Your task to perform on an android device: Open settings on Google Maps Image 0: 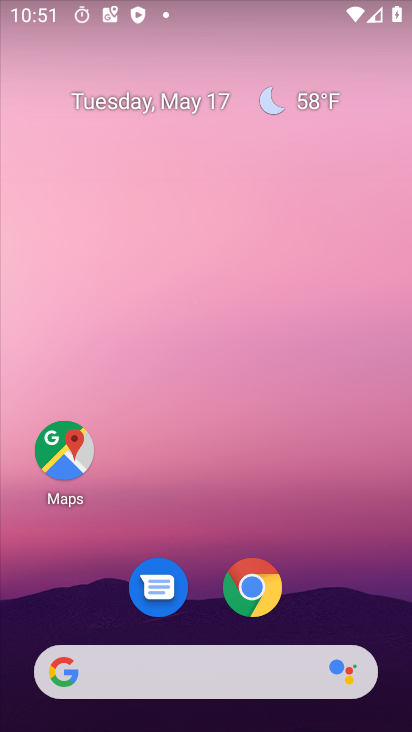
Step 0: click (63, 454)
Your task to perform on an android device: Open settings on Google Maps Image 1: 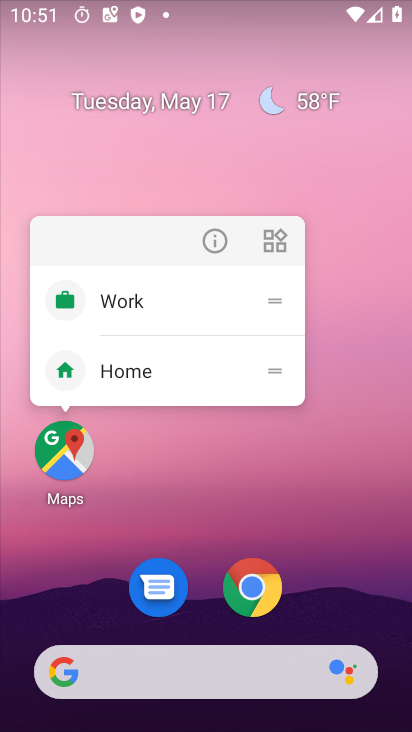
Step 1: click (61, 454)
Your task to perform on an android device: Open settings on Google Maps Image 2: 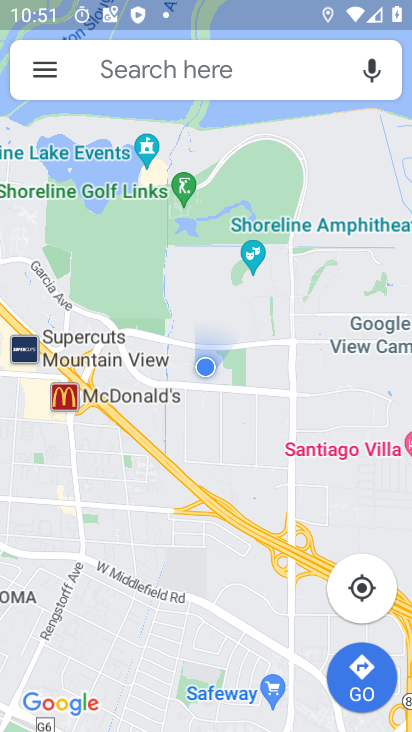
Step 2: click (46, 69)
Your task to perform on an android device: Open settings on Google Maps Image 3: 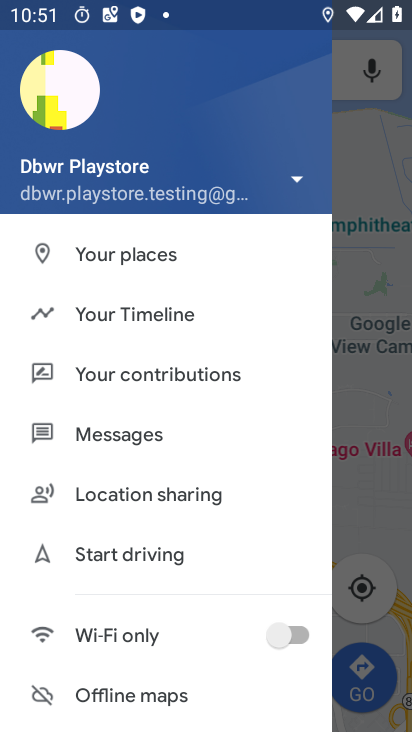
Step 3: drag from (144, 526) to (161, 398)
Your task to perform on an android device: Open settings on Google Maps Image 4: 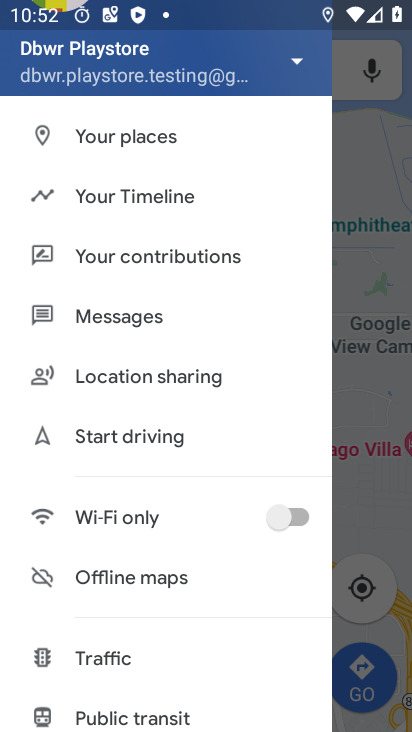
Step 4: drag from (125, 484) to (152, 407)
Your task to perform on an android device: Open settings on Google Maps Image 5: 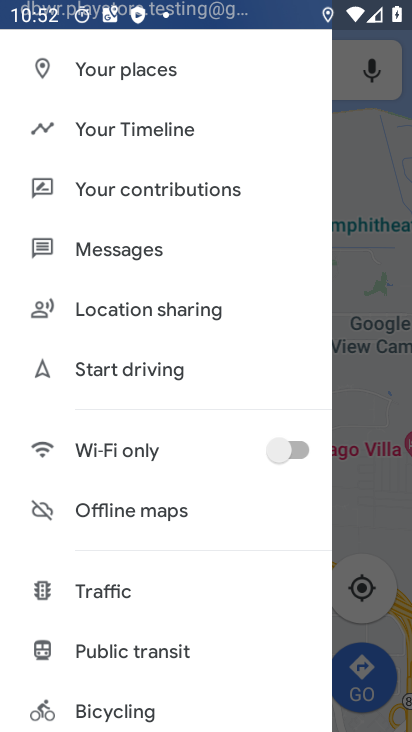
Step 5: drag from (109, 532) to (153, 420)
Your task to perform on an android device: Open settings on Google Maps Image 6: 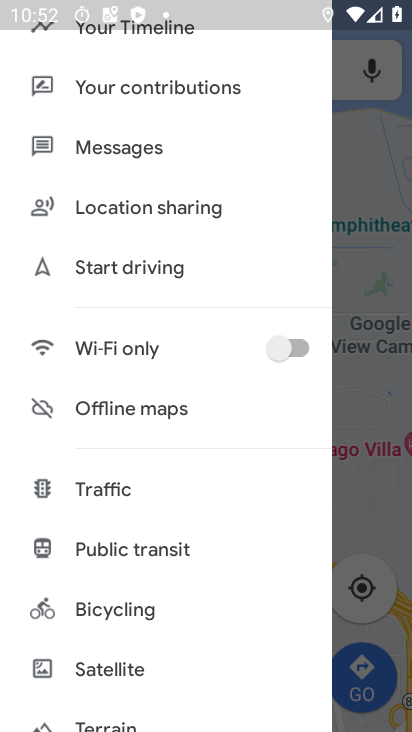
Step 6: drag from (103, 518) to (152, 430)
Your task to perform on an android device: Open settings on Google Maps Image 7: 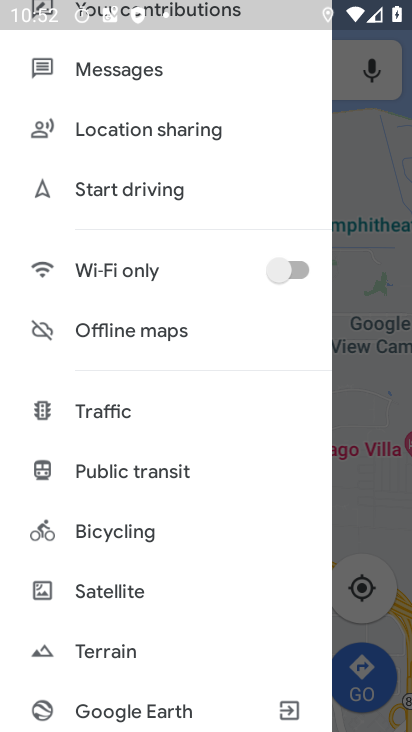
Step 7: drag from (111, 554) to (134, 445)
Your task to perform on an android device: Open settings on Google Maps Image 8: 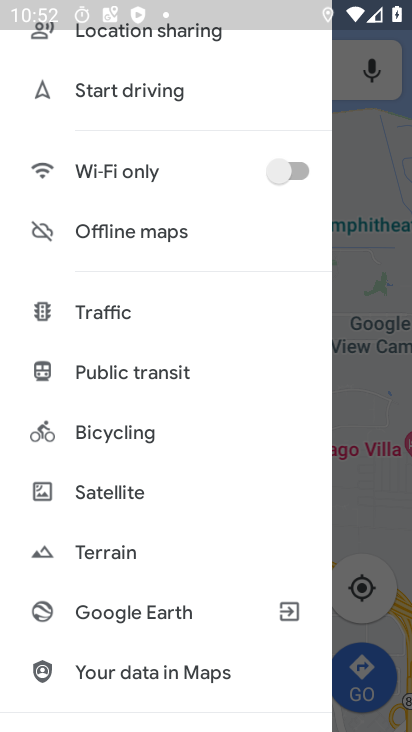
Step 8: drag from (102, 520) to (133, 419)
Your task to perform on an android device: Open settings on Google Maps Image 9: 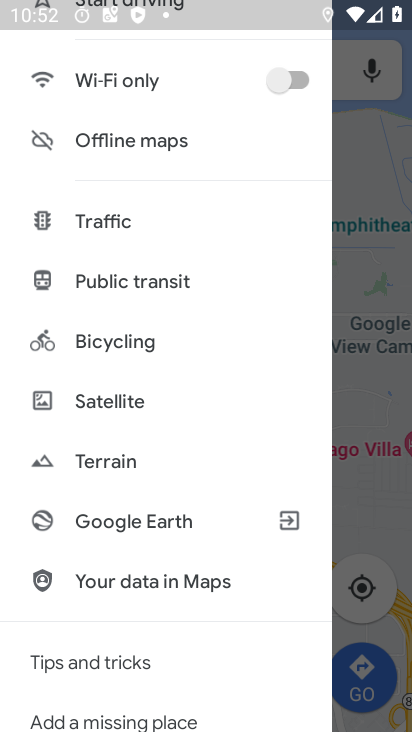
Step 9: drag from (100, 544) to (145, 447)
Your task to perform on an android device: Open settings on Google Maps Image 10: 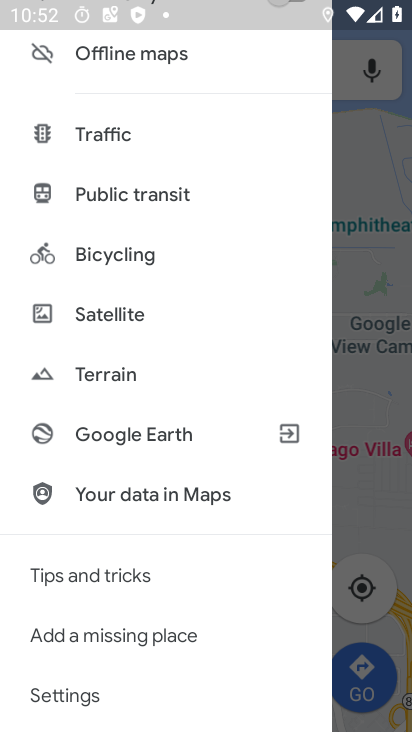
Step 10: drag from (90, 540) to (144, 440)
Your task to perform on an android device: Open settings on Google Maps Image 11: 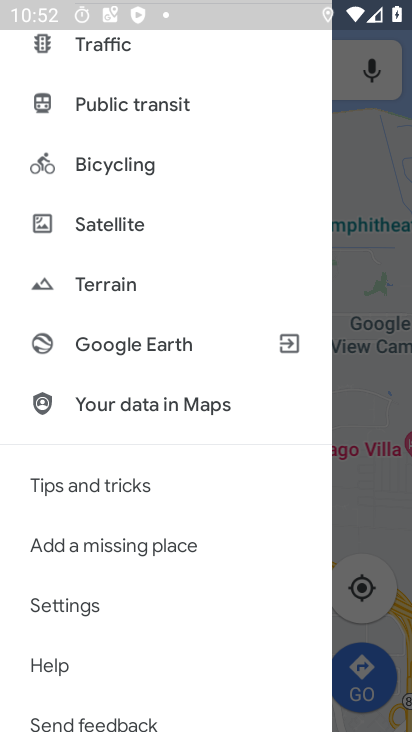
Step 11: click (66, 602)
Your task to perform on an android device: Open settings on Google Maps Image 12: 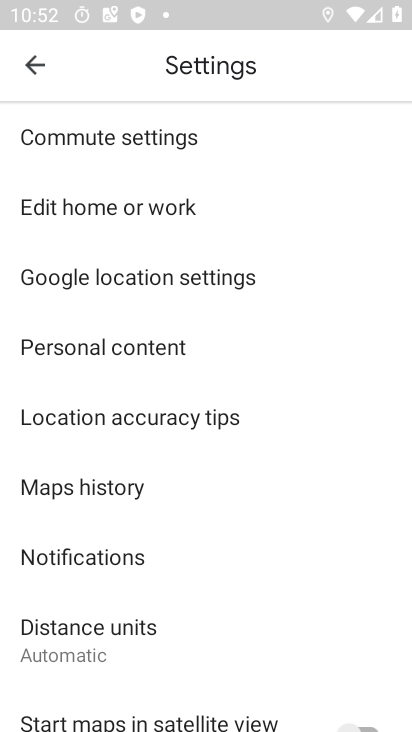
Step 12: task complete